Your task to perform on an android device: read, delete, or share a saved page in the chrome app Image 0: 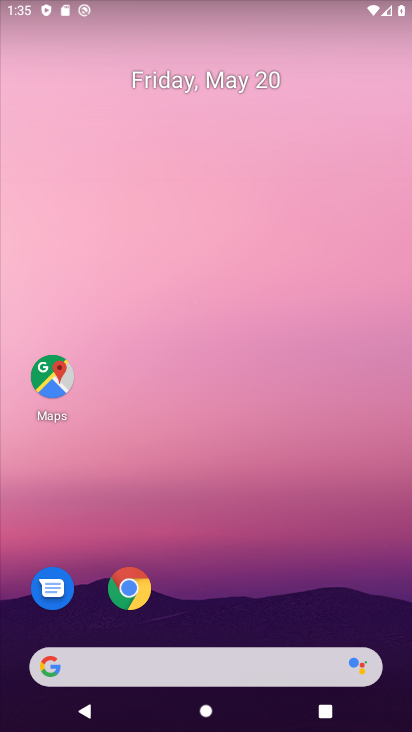
Step 0: click (374, 652)
Your task to perform on an android device: read, delete, or share a saved page in the chrome app Image 1: 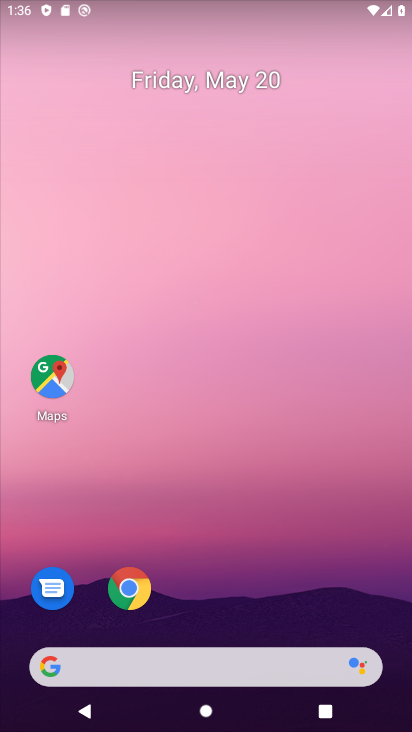
Step 1: click (384, 663)
Your task to perform on an android device: read, delete, or share a saved page in the chrome app Image 2: 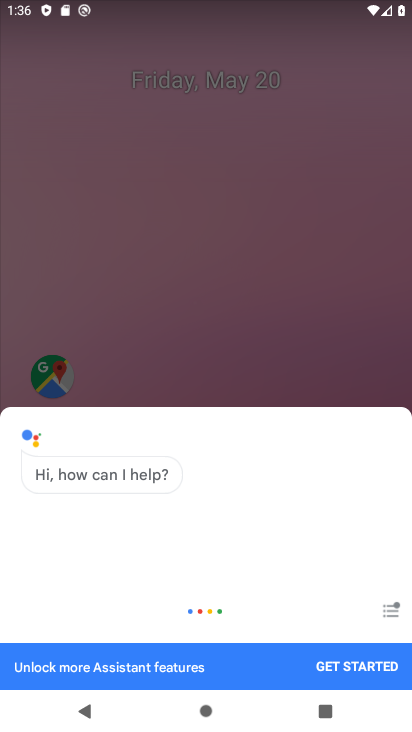
Step 2: click (369, 635)
Your task to perform on an android device: read, delete, or share a saved page in the chrome app Image 3: 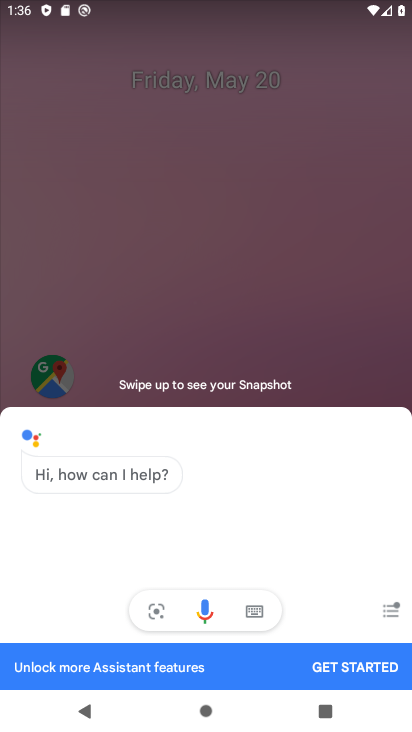
Step 3: click (384, 652)
Your task to perform on an android device: read, delete, or share a saved page in the chrome app Image 4: 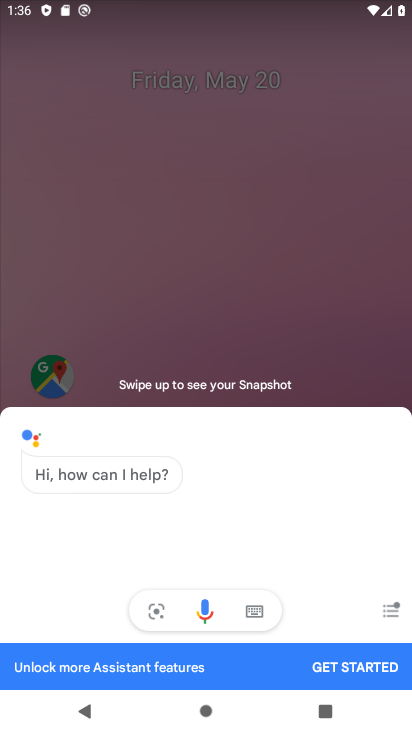
Step 4: click (377, 653)
Your task to perform on an android device: read, delete, or share a saved page in the chrome app Image 5: 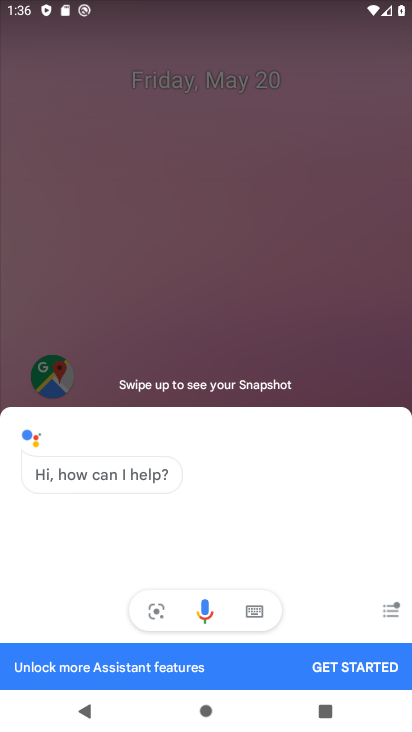
Step 5: click (385, 657)
Your task to perform on an android device: read, delete, or share a saved page in the chrome app Image 6: 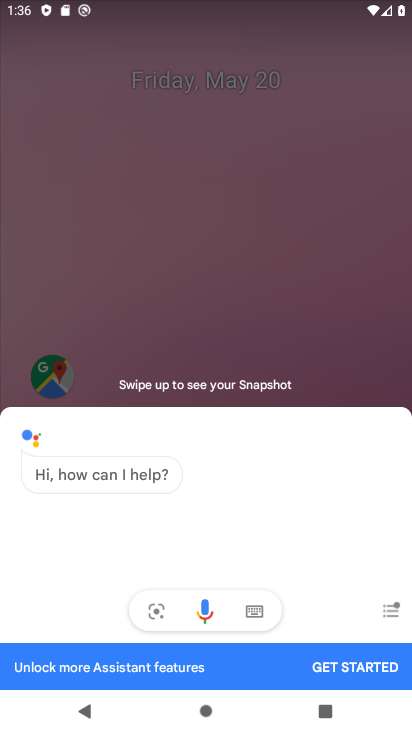
Step 6: click (384, 657)
Your task to perform on an android device: read, delete, or share a saved page in the chrome app Image 7: 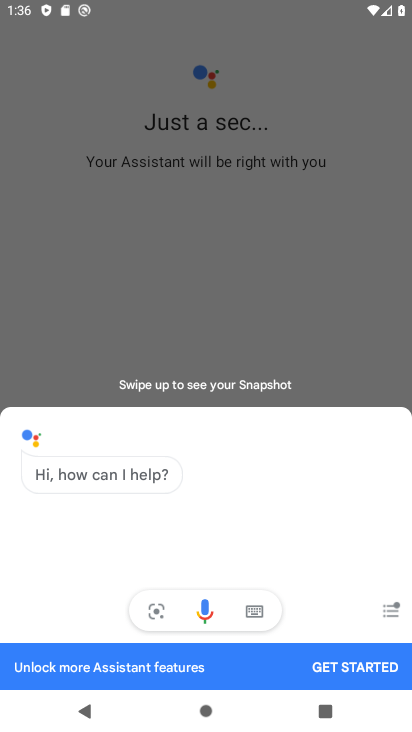
Step 7: drag from (259, 593) to (240, 127)
Your task to perform on an android device: read, delete, or share a saved page in the chrome app Image 8: 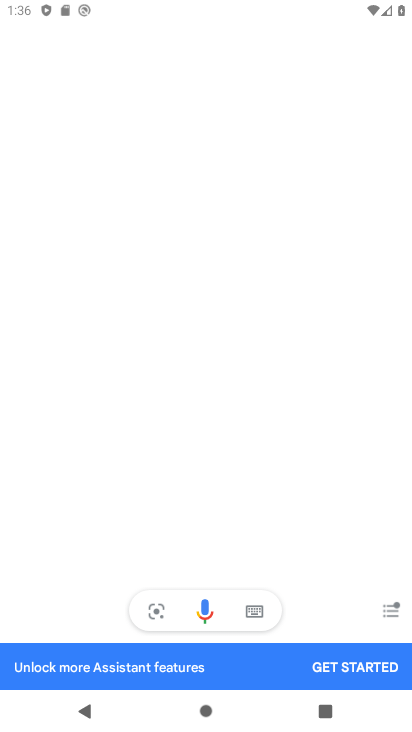
Step 8: press back button
Your task to perform on an android device: read, delete, or share a saved page in the chrome app Image 9: 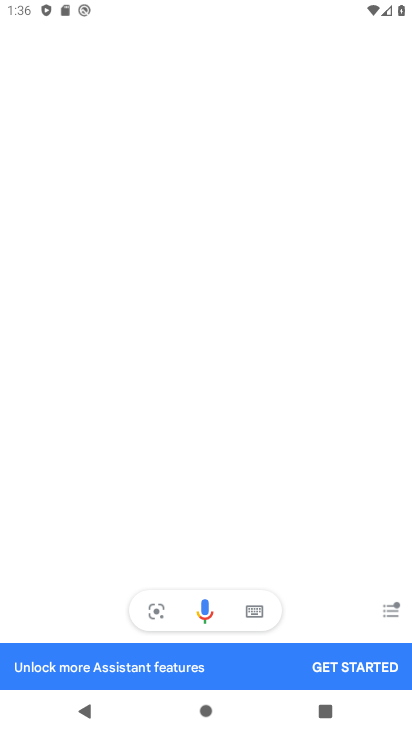
Step 9: press home button
Your task to perform on an android device: read, delete, or share a saved page in the chrome app Image 10: 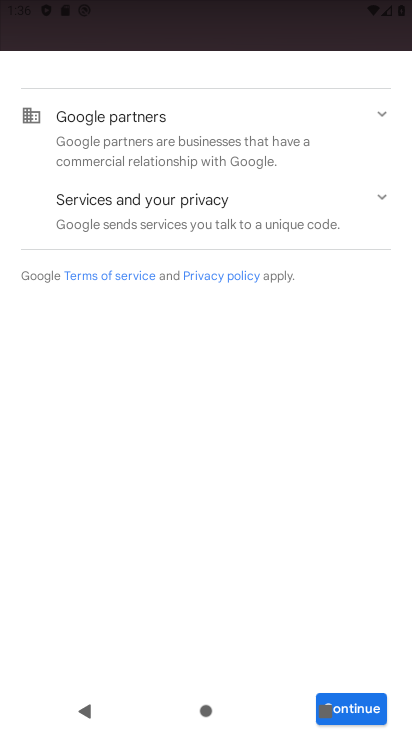
Step 10: press home button
Your task to perform on an android device: read, delete, or share a saved page in the chrome app Image 11: 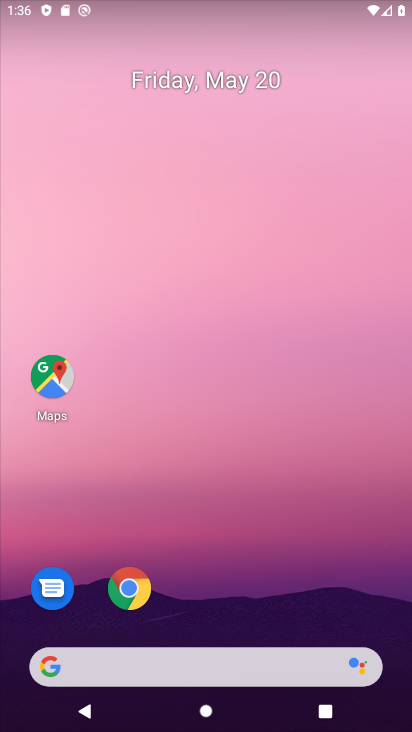
Step 11: press home button
Your task to perform on an android device: read, delete, or share a saved page in the chrome app Image 12: 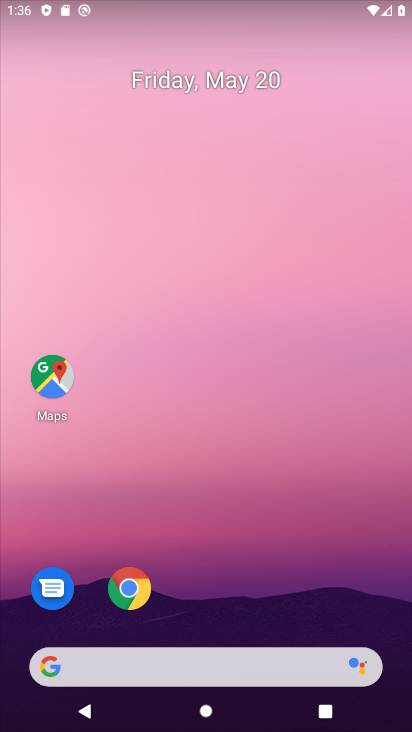
Step 12: drag from (176, 257) to (156, 9)
Your task to perform on an android device: read, delete, or share a saved page in the chrome app Image 13: 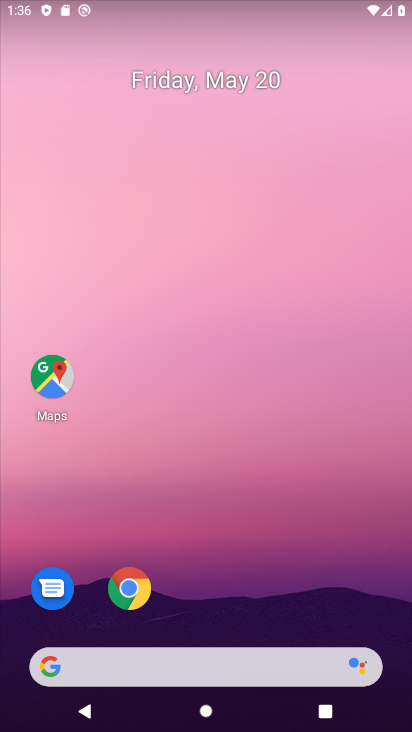
Step 13: drag from (276, 575) to (296, 70)
Your task to perform on an android device: read, delete, or share a saved page in the chrome app Image 14: 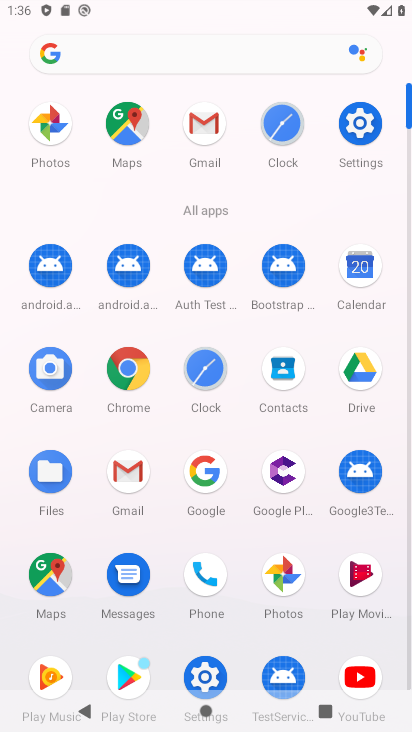
Step 14: click (130, 371)
Your task to perform on an android device: read, delete, or share a saved page in the chrome app Image 15: 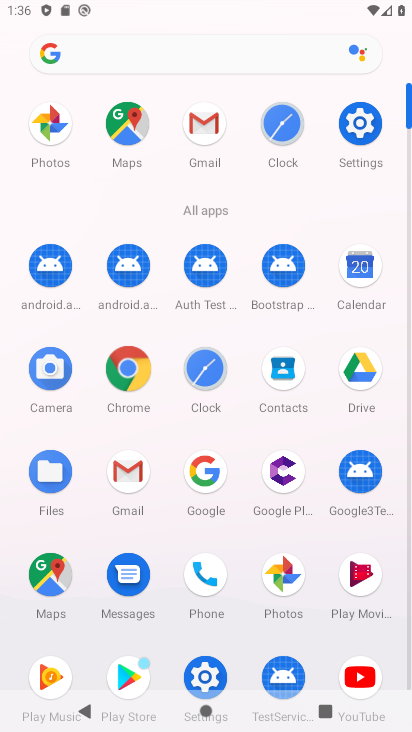
Step 15: click (131, 370)
Your task to perform on an android device: read, delete, or share a saved page in the chrome app Image 16: 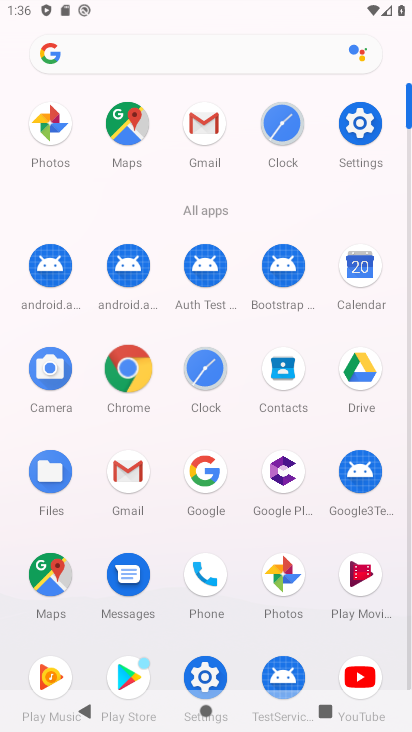
Step 16: click (131, 370)
Your task to perform on an android device: read, delete, or share a saved page in the chrome app Image 17: 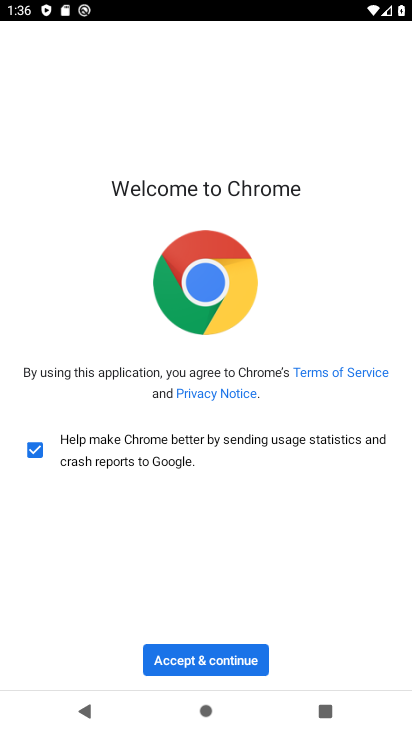
Step 17: click (210, 669)
Your task to perform on an android device: read, delete, or share a saved page in the chrome app Image 18: 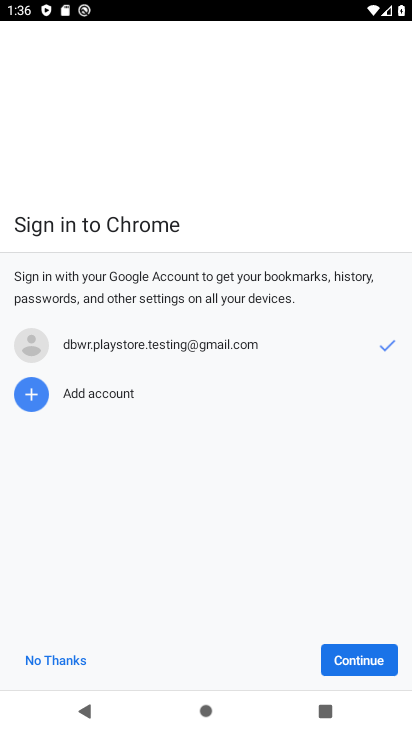
Step 18: click (372, 657)
Your task to perform on an android device: read, delete, or share a saved page in the chrome app Image 19: 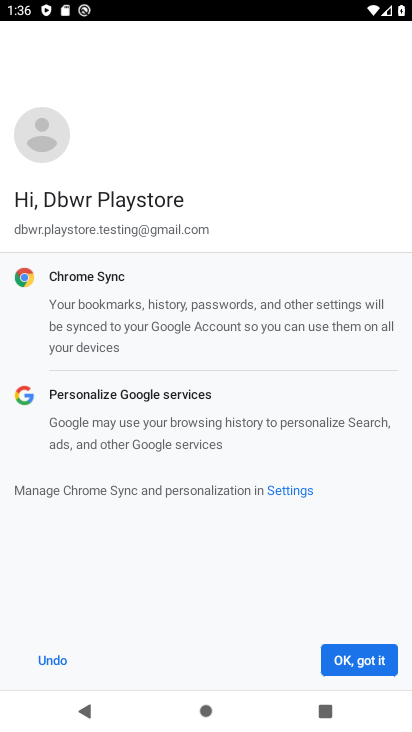
Step 19: click (347, 654)
Your task to perform on an android device: read, delete, or share a saved page in the chrome app Image 20: 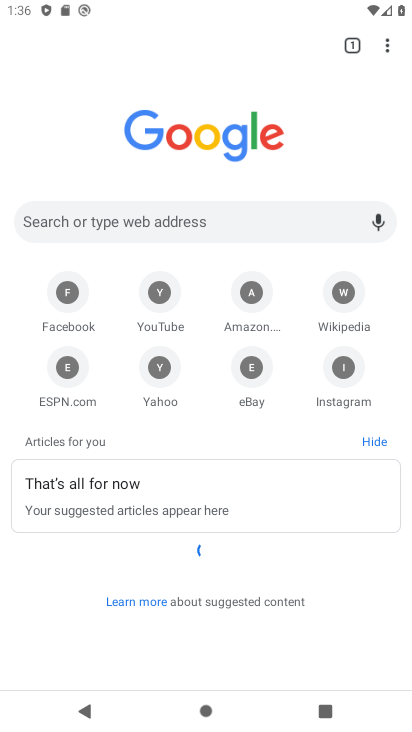
Step 20: drag from (381, 43) to (218, 298)
Your task to perform on an android device: read, delete, or share a saved page in the chrome app Image 21: 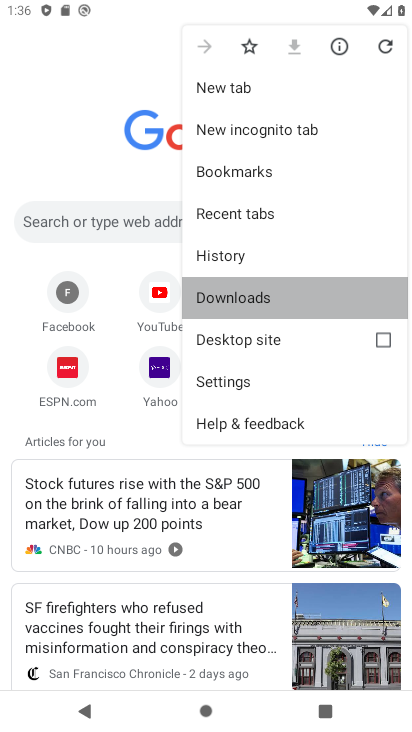
Step 21: click (218, 298)
Your task to perform on an android device: read, delete, or share a saved page in the chrome app Image 22: 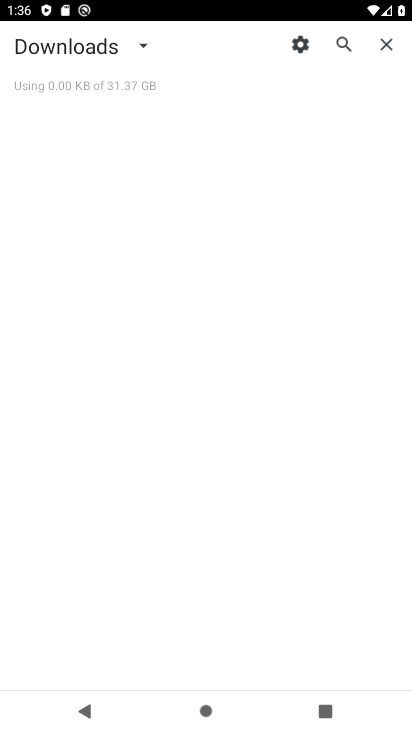
Step 22: click (130, 45)
Your task to perform on an android device: read, delete, or share a saved page in the chrome app Image 23: 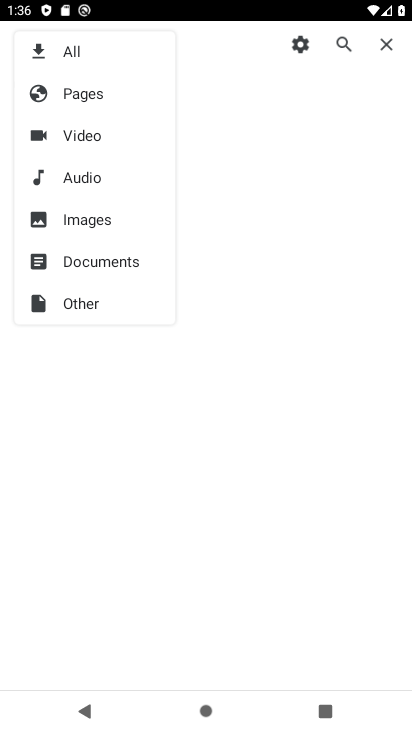
Step 23: click (97, 96)
Your task to perform on an android device: read, delete, or share a saved page in the chrome app Image 24: 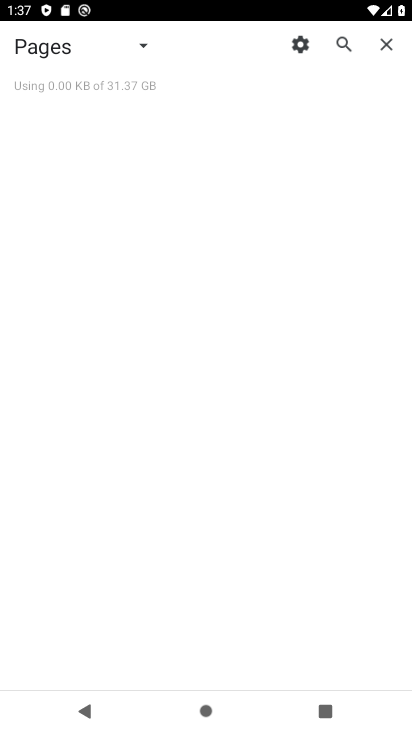
Step 24: task complete